Your task to perform on an android device: View the shopping cart on ebay. Image 0: 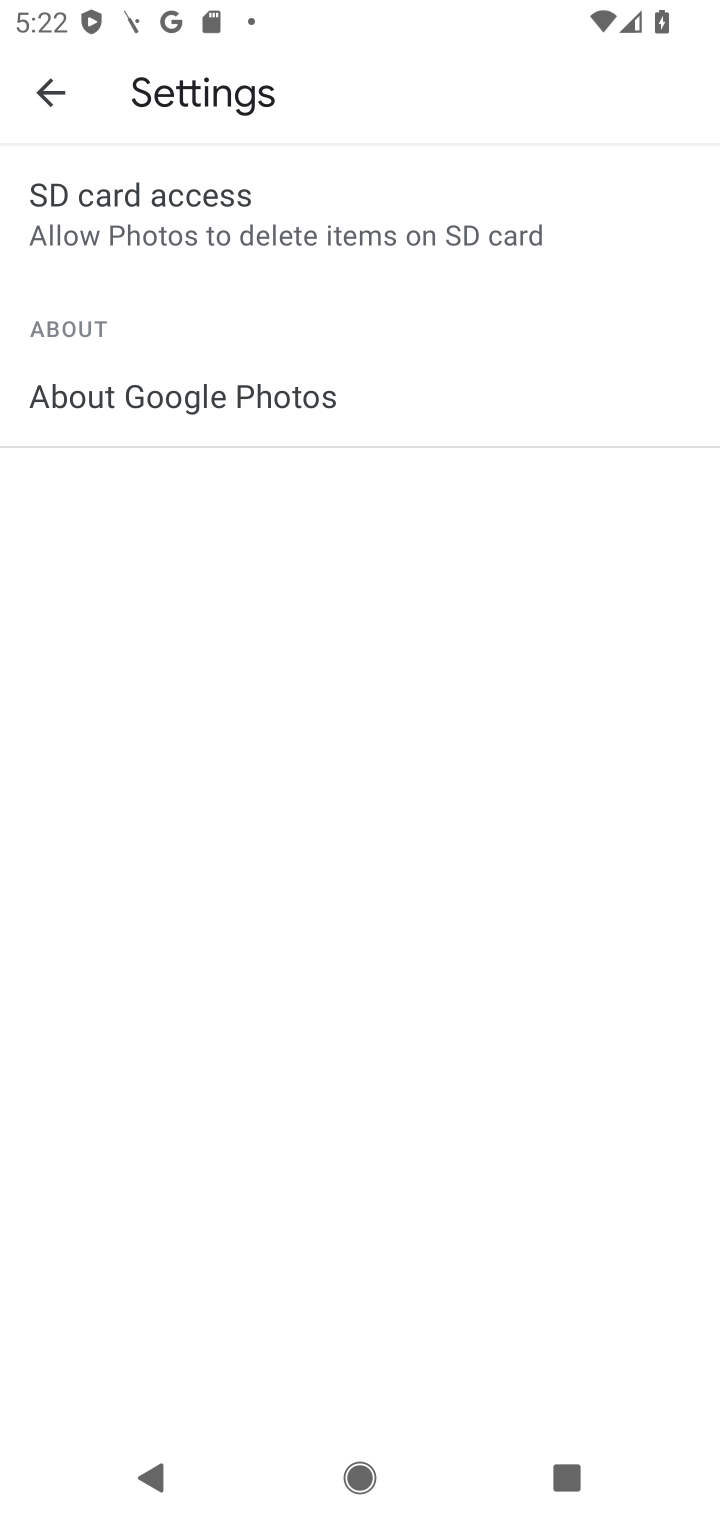
Step 0: press home button
Your task to perform on an android device: View the shopping cart on ebay. Image 1: 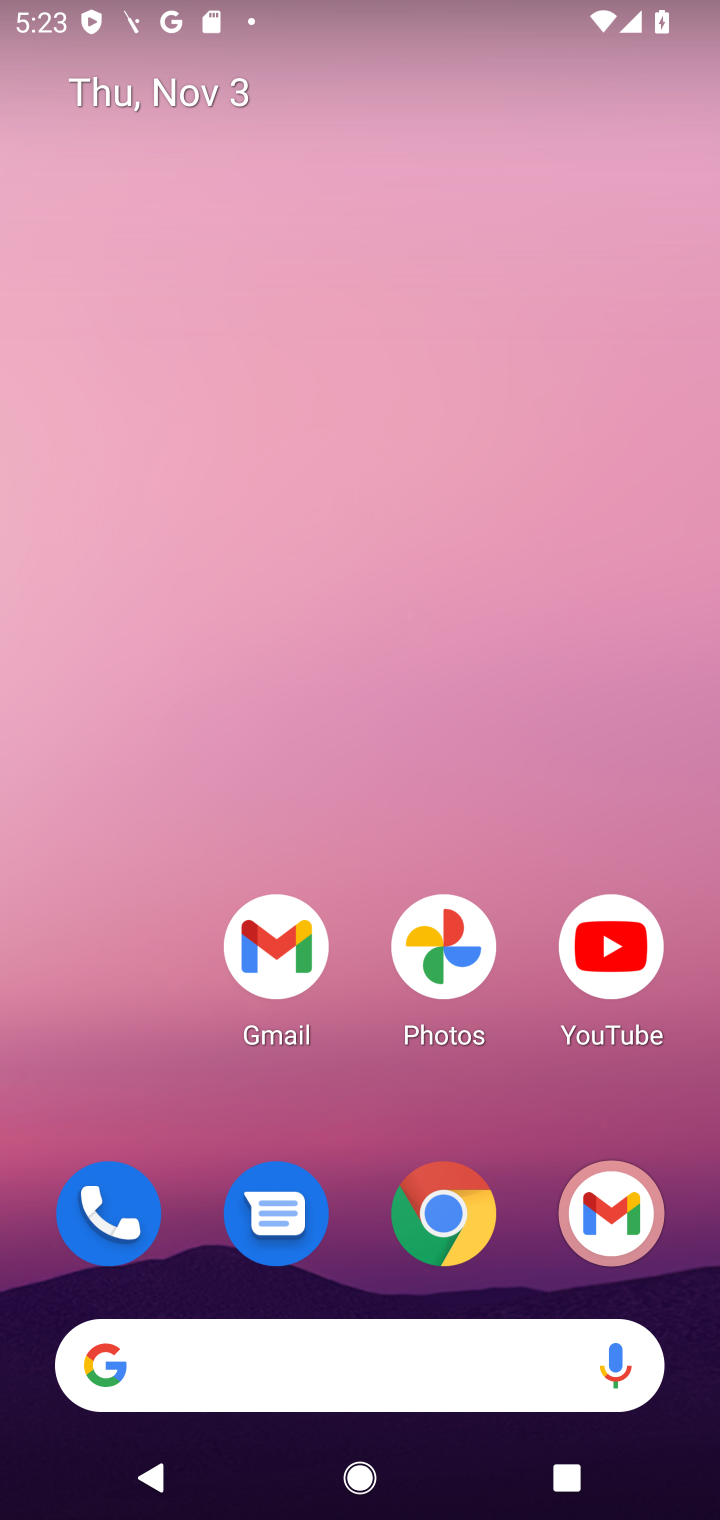
Step 1: click (447, 1225)
Your task to perform on an android device: View the shopping cart on ebay. Image 2: 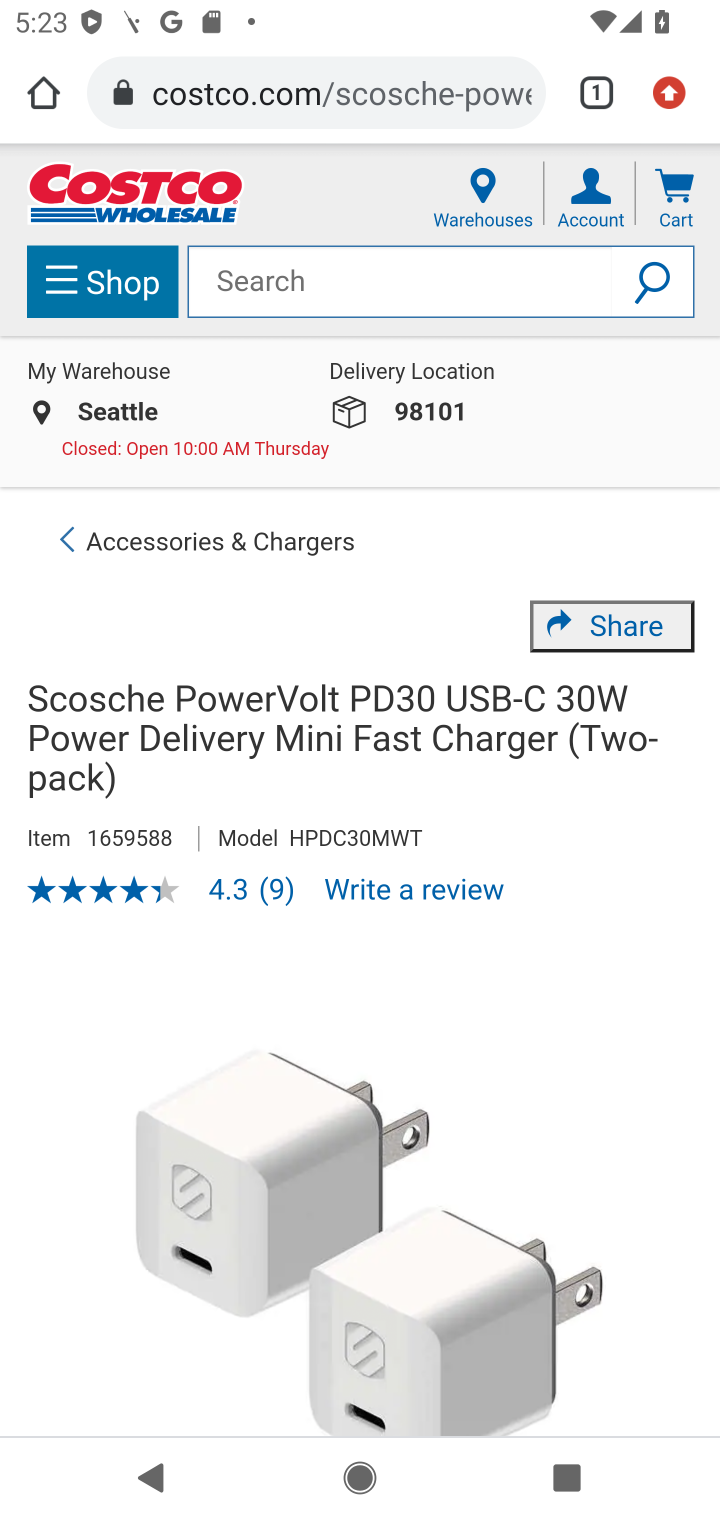
Step 2: click (327, 99)
Your task to perform on an android device: View the shopping cart on ebay. Image 3: 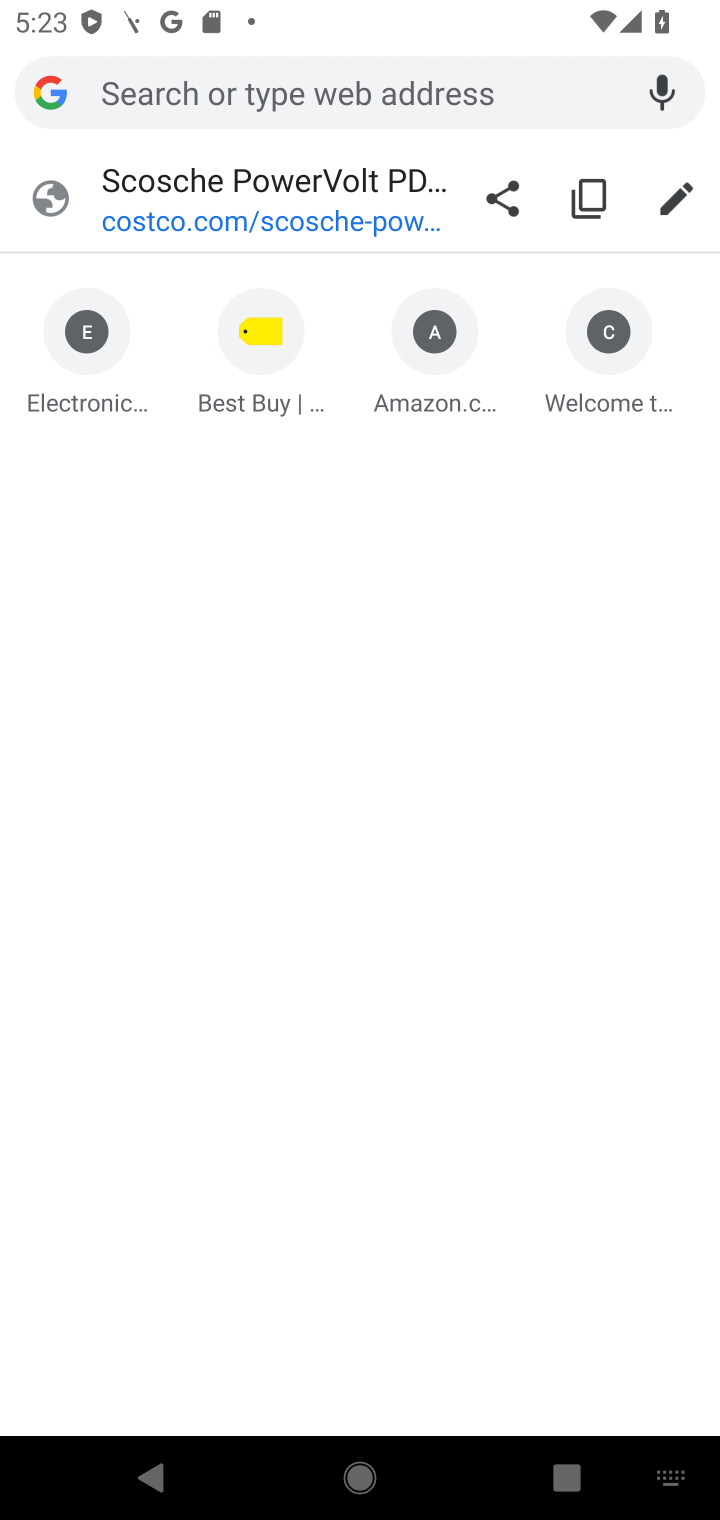
Step 3: type "ebay.com"
Your task to perform on an android device: View the shopping cart on ebay. Image 4: 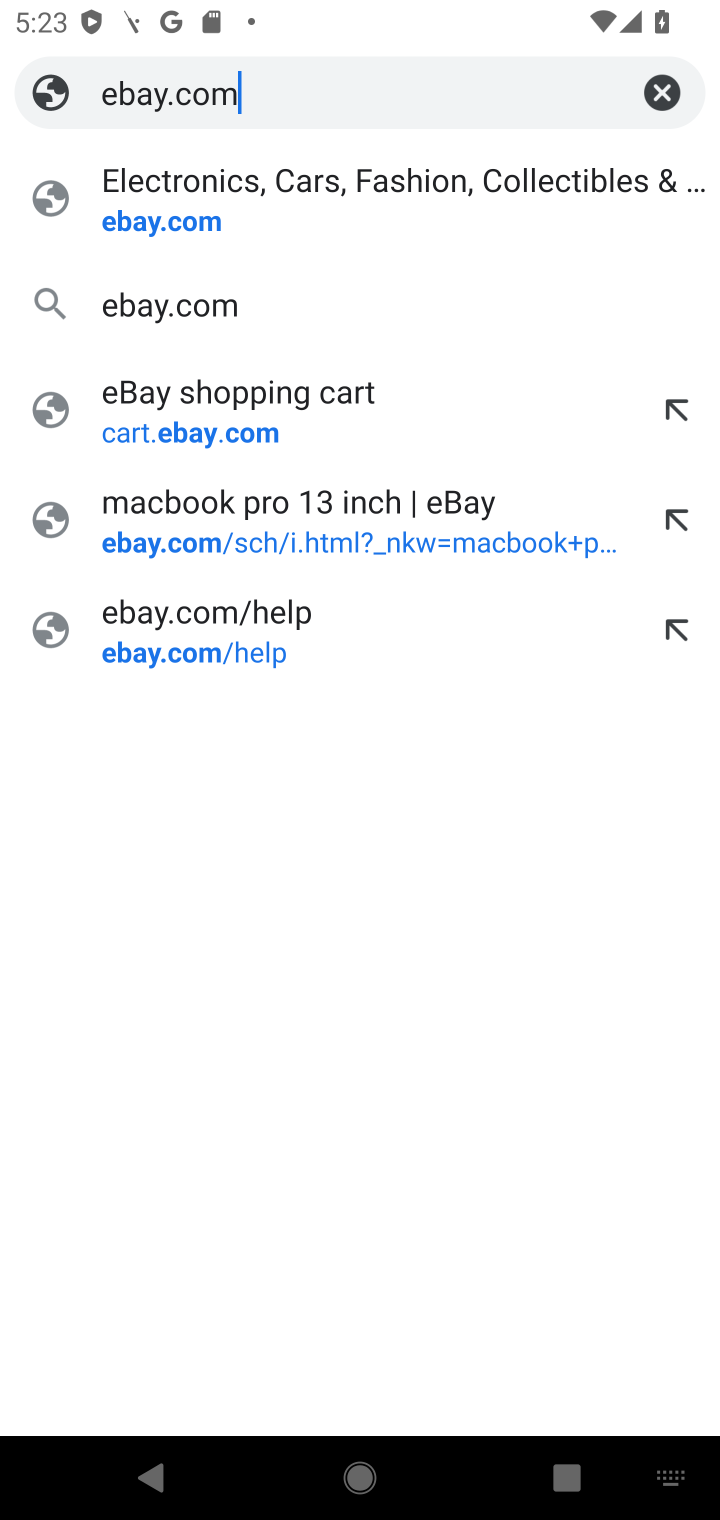
Step 4: click (156, 227)
Your task to perform on an android device: View the shopping cart on ebay. Image 5: 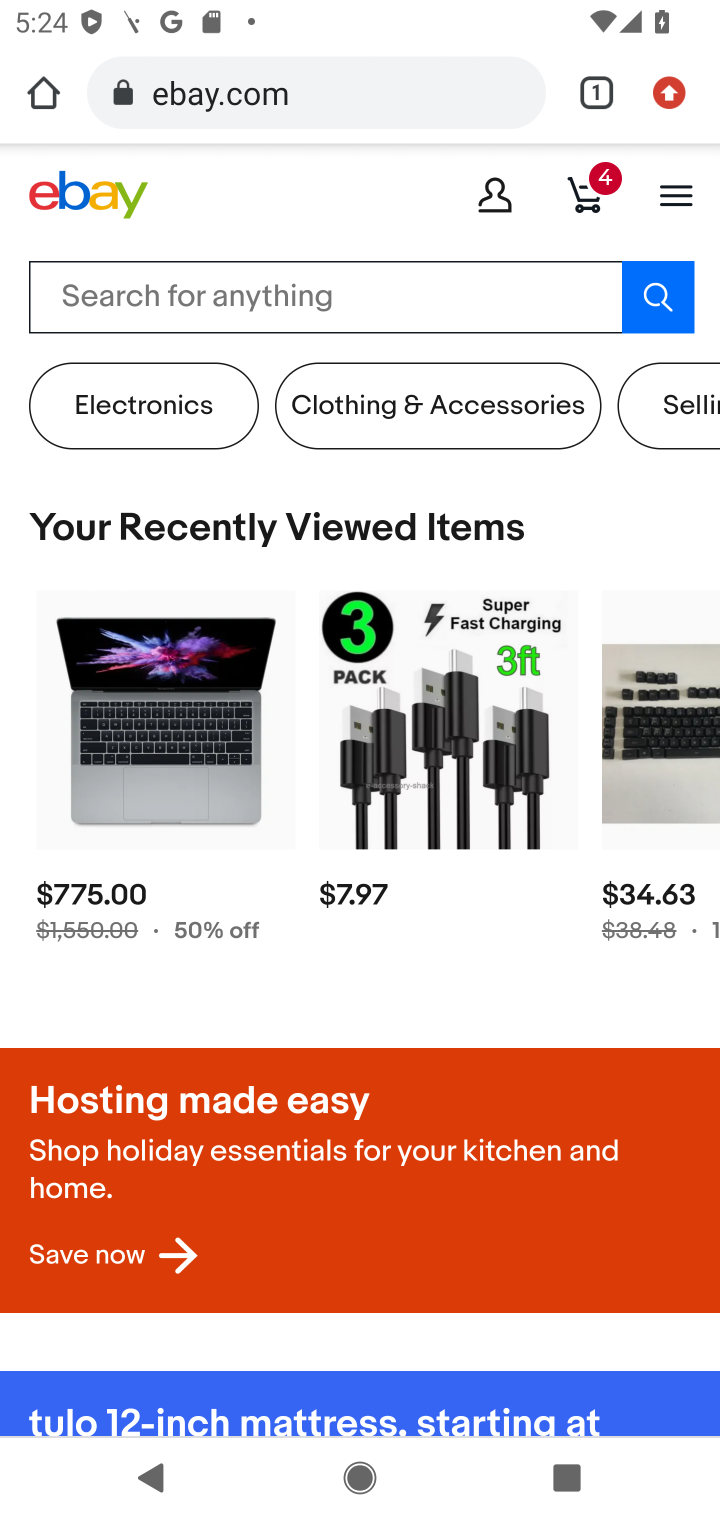
Step 5: click (599, 206)
Your task to perform on an android device: View the shopping cart on ebay. Image 6: 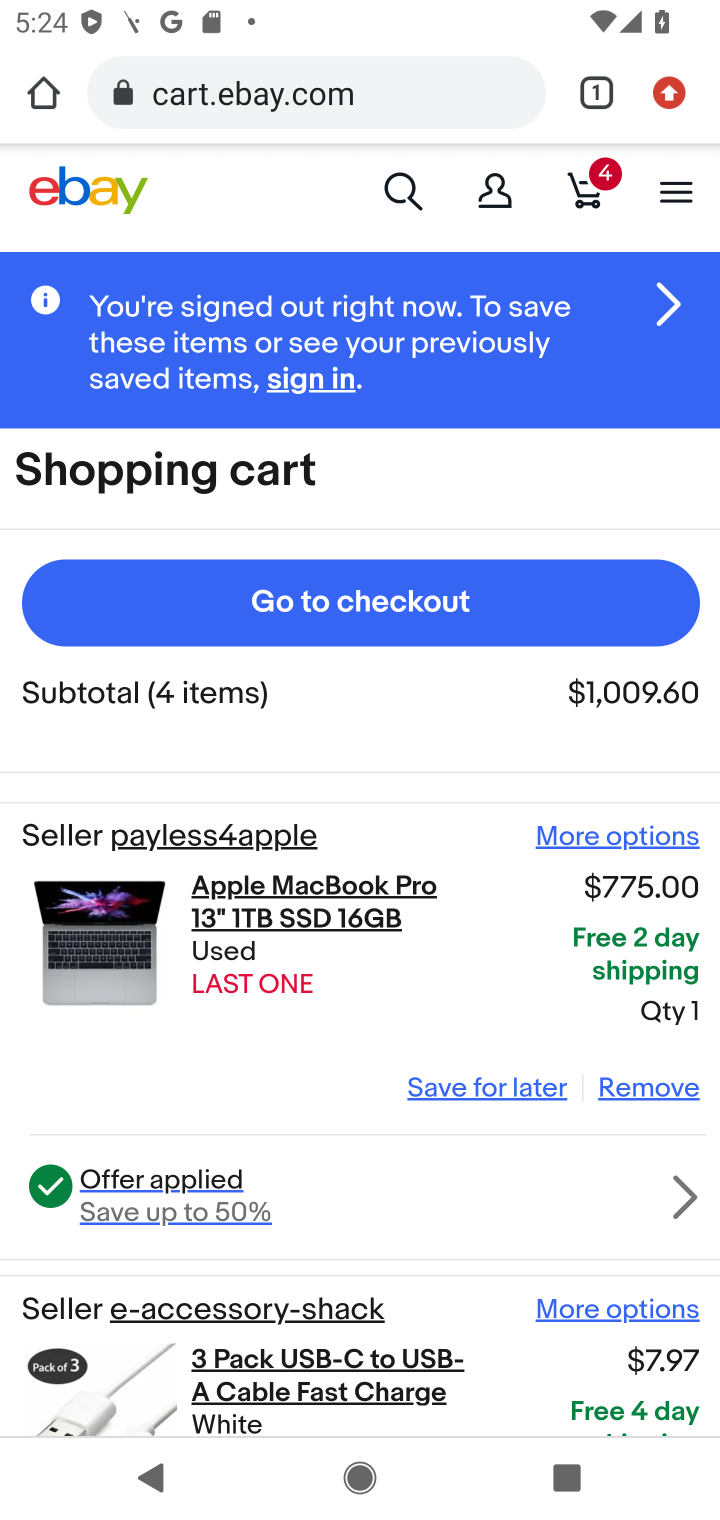
Step 6: task complete